Your task to perform on an android device: open app "Messenger Lite" Image 0: 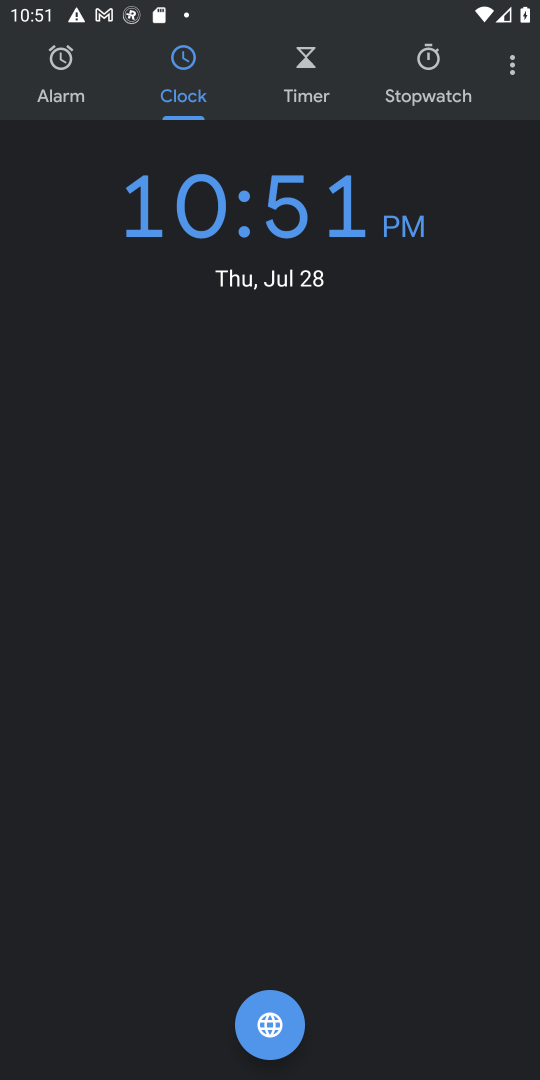
Step 0: press home button
Your task to perform on an android device: open app "Messenger Lite" Image 1: 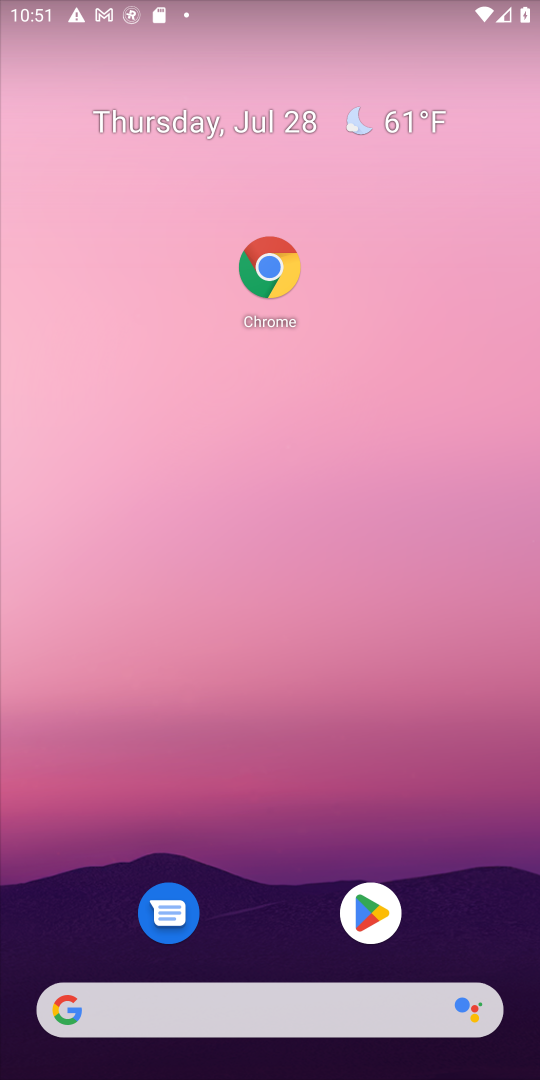
Step 1: click (373, 917)
Your task to perform on an android device: open app "Messenger Lite" Image 2: 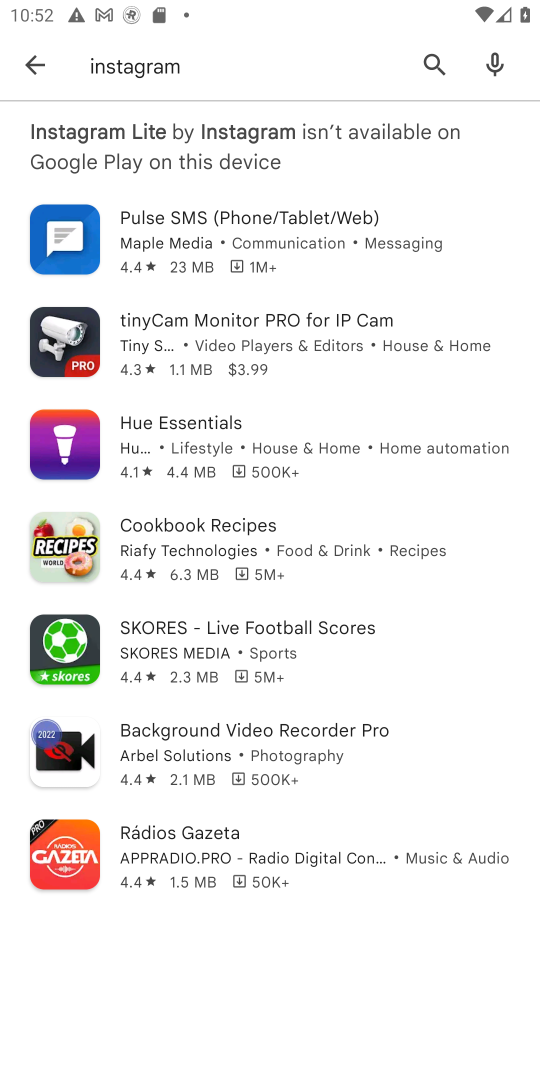
Step 2: click (429, 67)
Your task to perform on an android device: open app "Messenger Lite" Image 3: 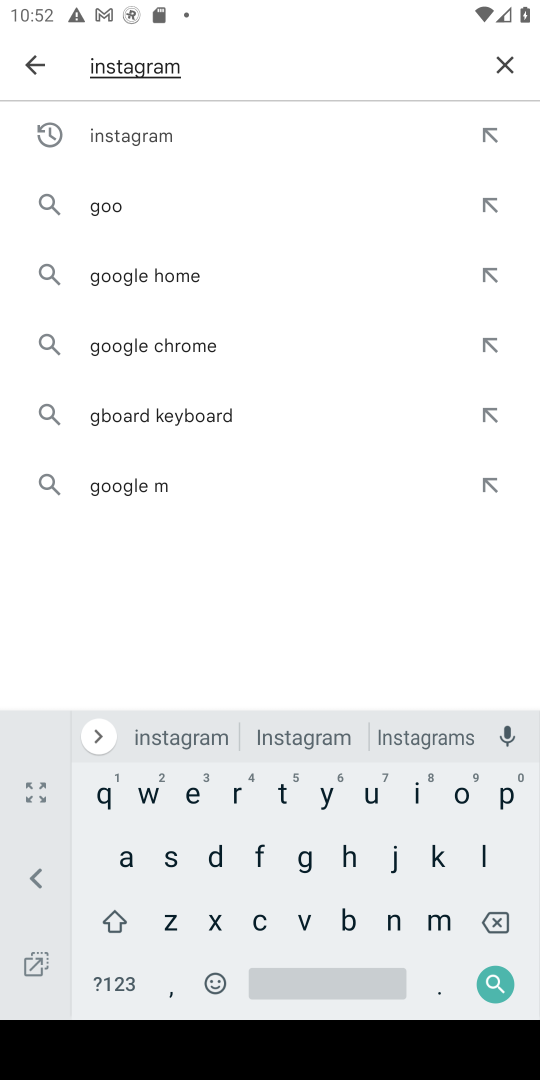
Step 3: click (502, 69)
Your task to perform on an android device: open app "Messenger Lite" Image 4: 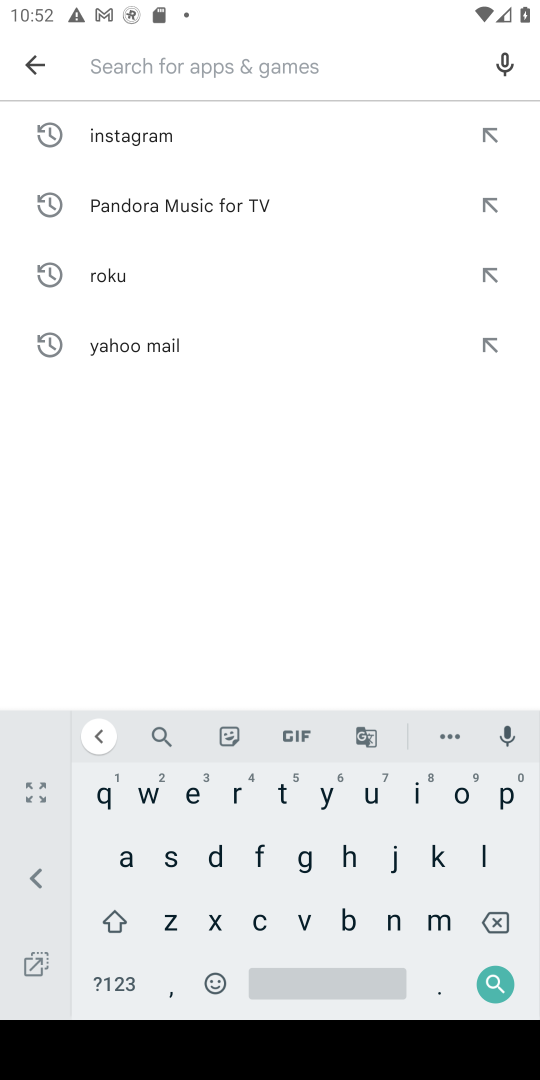
Step 4: click (437, 910)
Your task to perform on an android device: open app "Messenger Lite" Image 5: 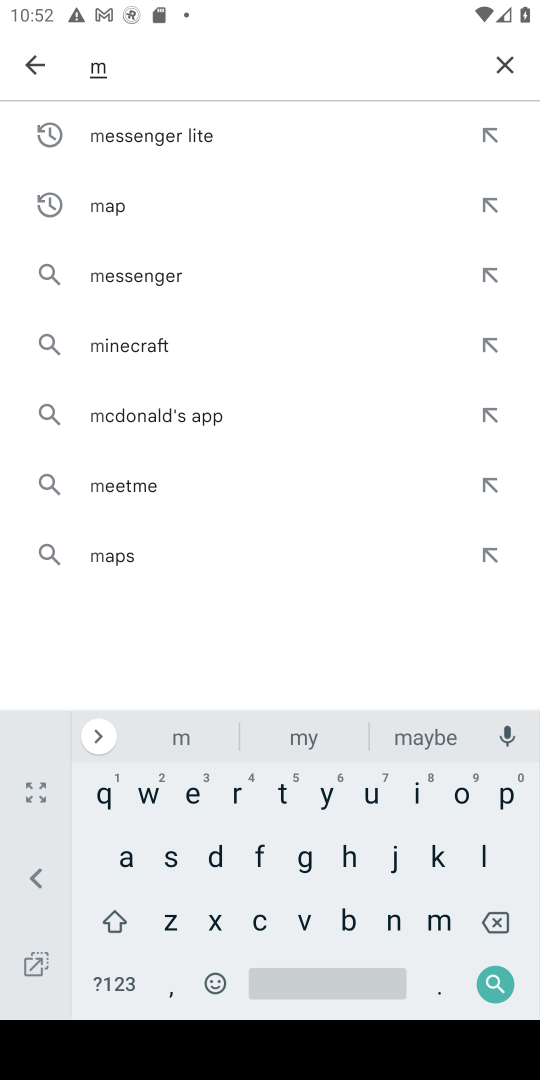
Step 5: click (181, 793)
Your task to perform on an android device: open app "Messenger Lite" Image 6: 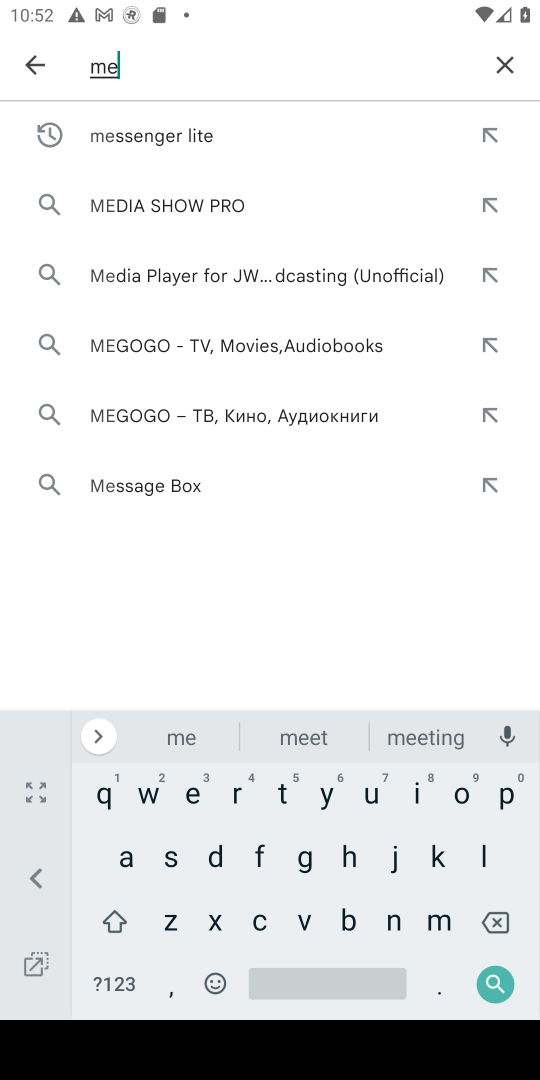
Step 6: click (185, 135)
Your task to perform on an android device: open app "Messenger Lite" Image 7: 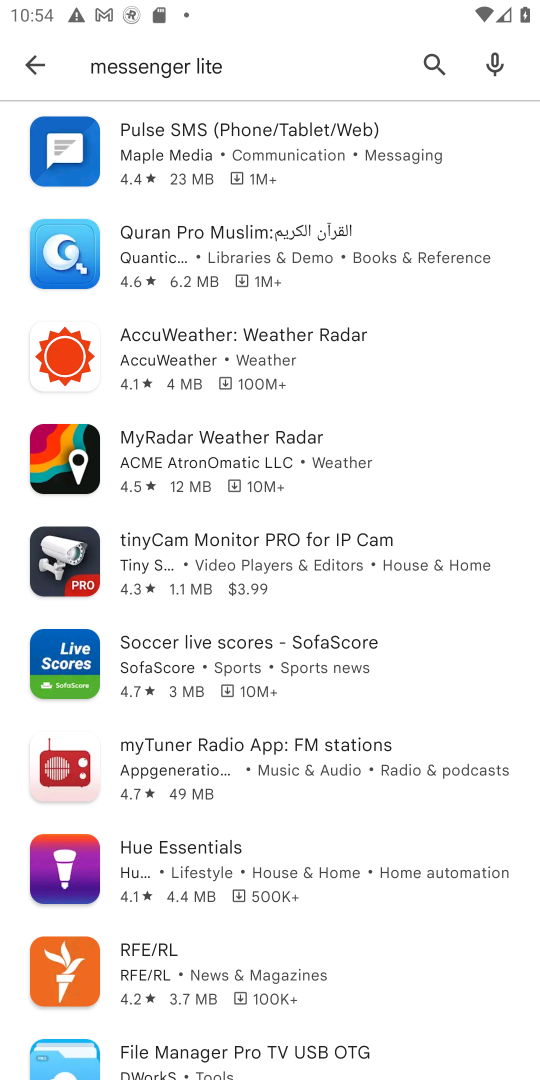
Step 7: task complete